Your task to perform on an android device: check data usage Image 0: 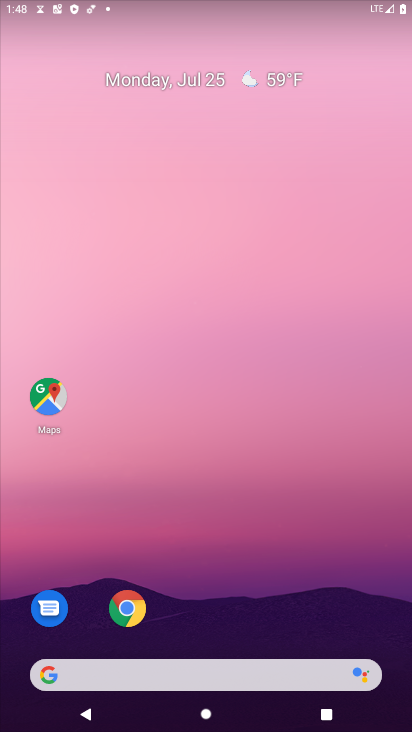
Step 0: click (288, 104)
Your task to perform on an android device: check data usage Image 1: 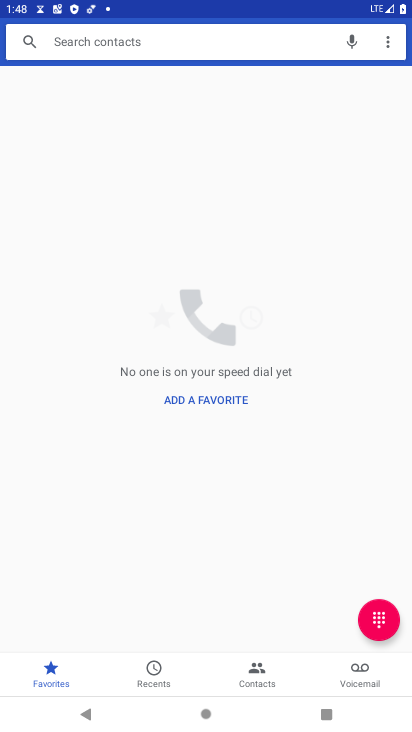
Step 1: press home button
Your task to perform on an android device: check data usage Image 2: 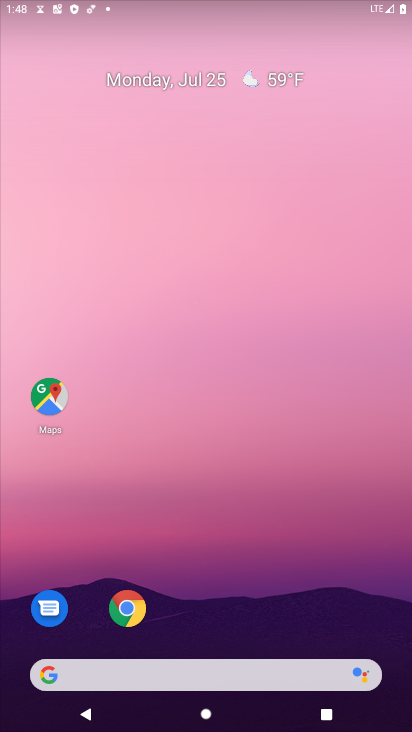
Step 2: drag from (269, 547) to (263, 54)
Your task to perform on an android device: check data usage Image 3: 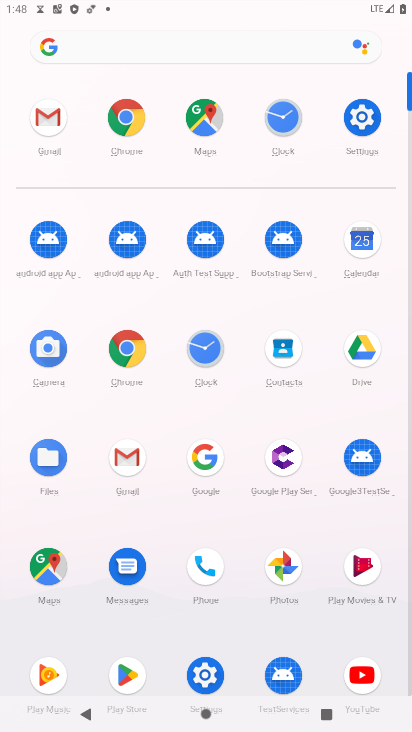
Step 3: click (350, 127)
Your task to perform on an android device: check data usage Image 4: 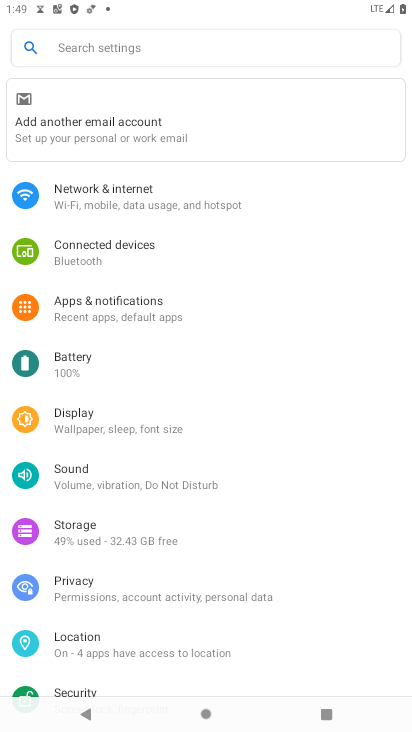
Step 4: click (167, 207)
Your task to perform on an android device: check data usage Image 5: 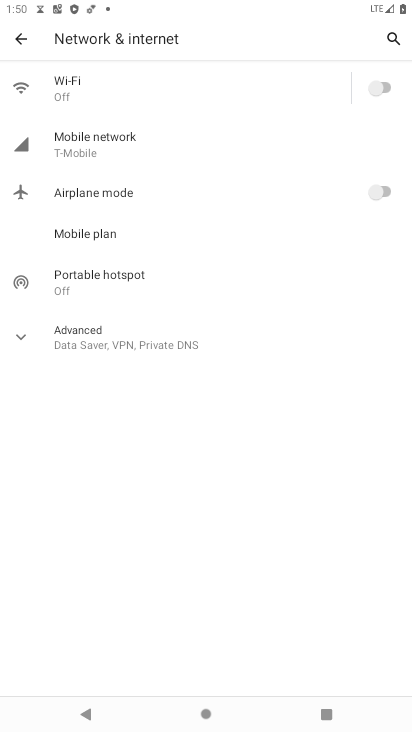
Step 5: click (219, 158)
Your task to perform on an android device: check data usage Image 6: 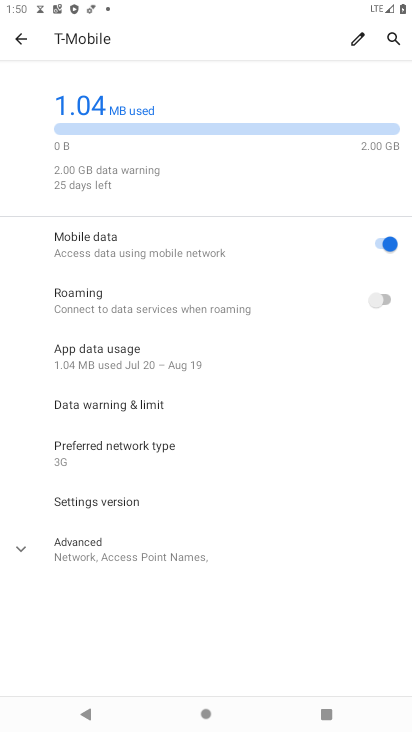
Step 6: click (217, 370)
Your task to perform on an android device: check data usage Image 7: 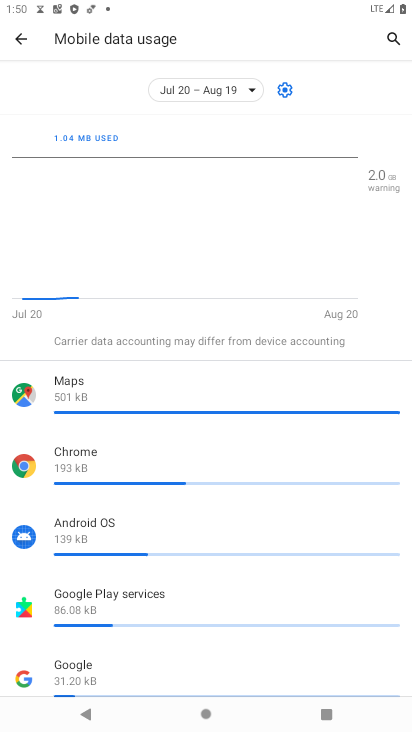
Step 7: task complete